Your task to perform on an android device: What's on my calendar today? Image 0: 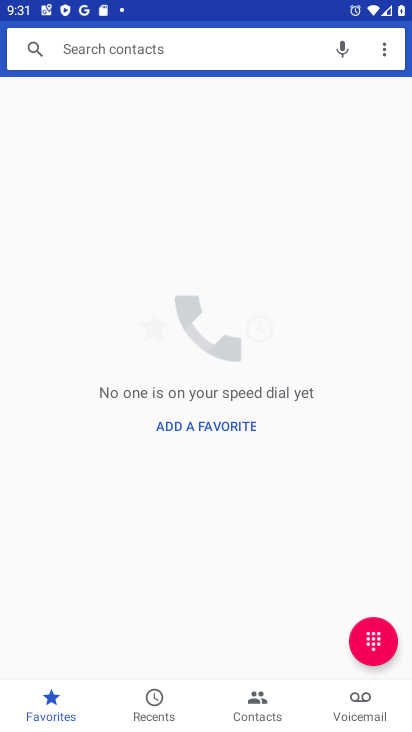
Step 0: click (209, 633)
Your task to perform on an android device: What's on my calendar today? Image 1: 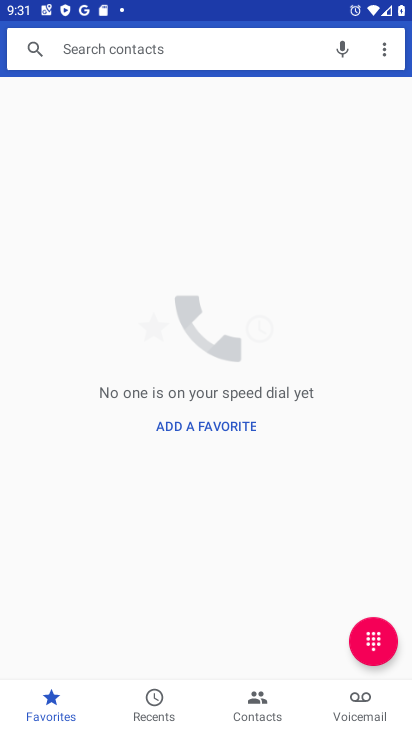
Step 1: press home button
Your task to perform on an android device: What's on my calendar today? Image 2: 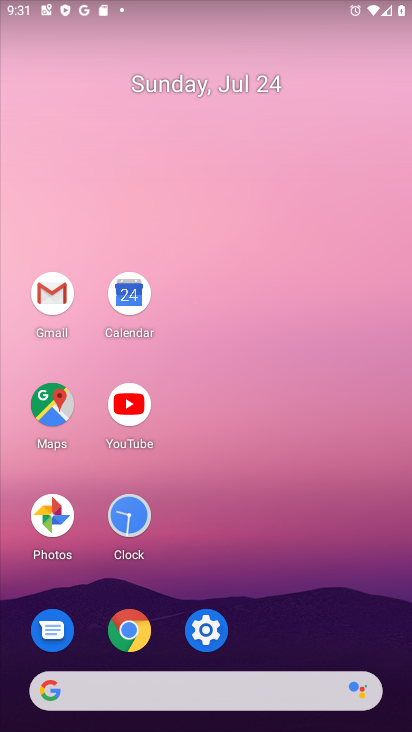
Step 2: click (124, 296)
Your task to perform on an android device: What's on my calendar today? Image 3: 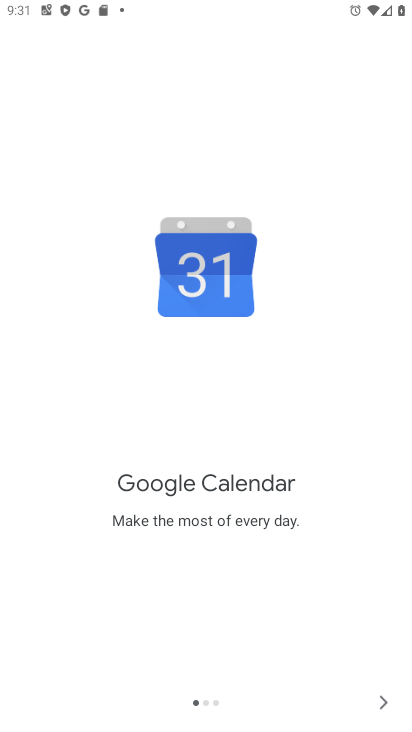
Step 3: click (381, 701)
Your task to perform on an android device: What's on my calendar today? Image 4: 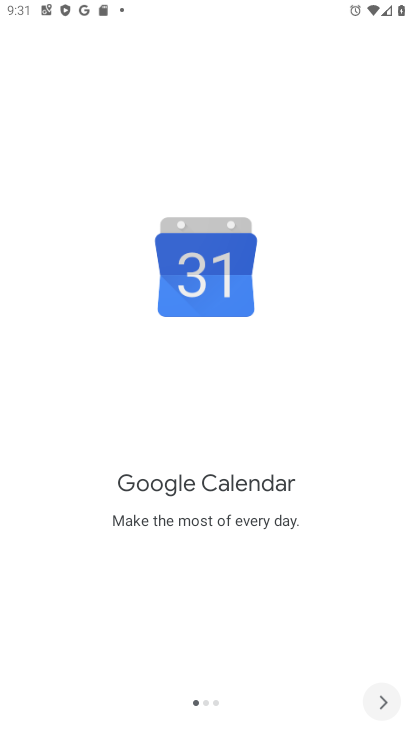
Step 4: click (381, 701)
Your task to perform on an android device: What's on my calendar today? Image 5: 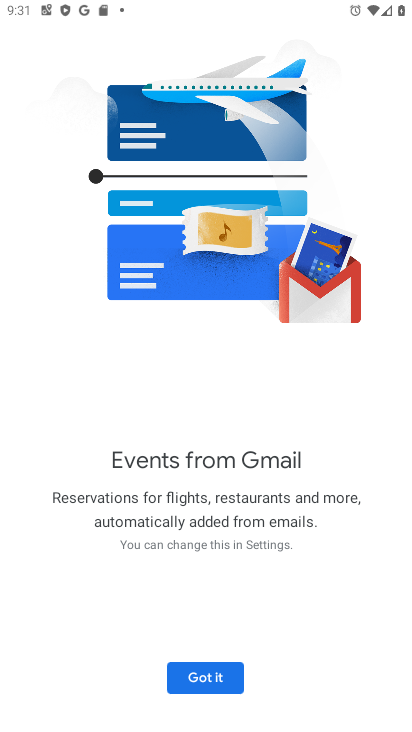
Step 5: click (204, 676)
Your task to perform on an android device: What's on my calendar today? Image 6: 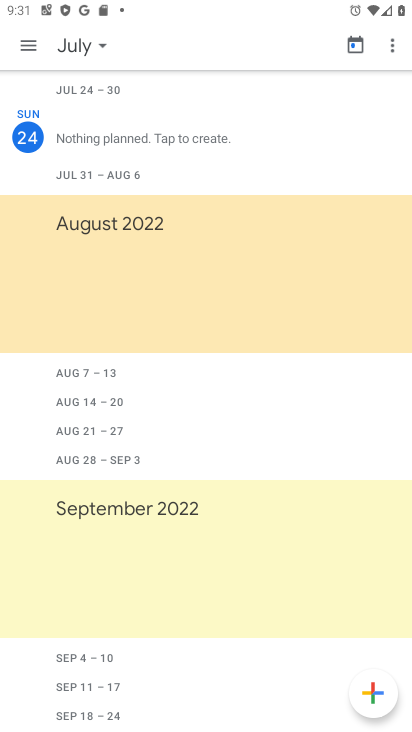
Step 6: click (29, 43)
Your task to perform on an android device: What's on my calendar today? Image 7: 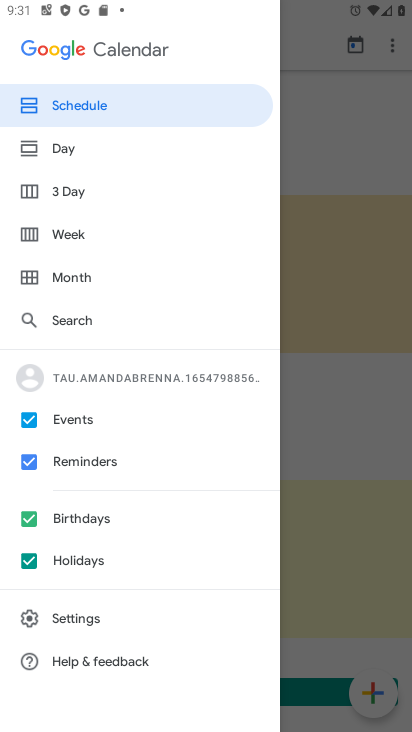
Step 7: click (61, 148)
Your task to perform on an android device: What's on my calendar today? Image 8: 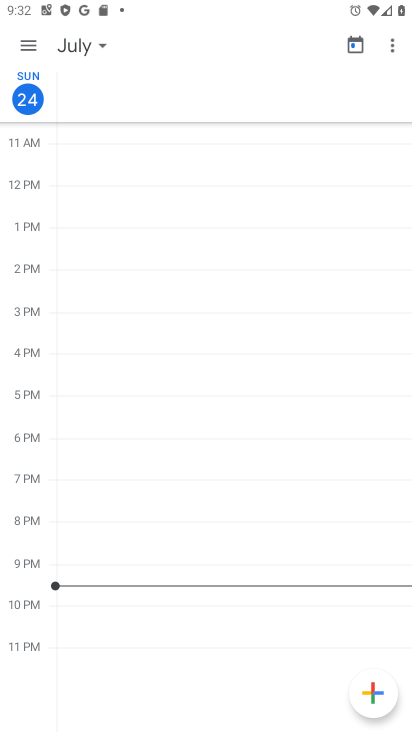
Step 8: task complete